Your task to perform on an android device: Open calendar and show me the second week of next month Image 0: 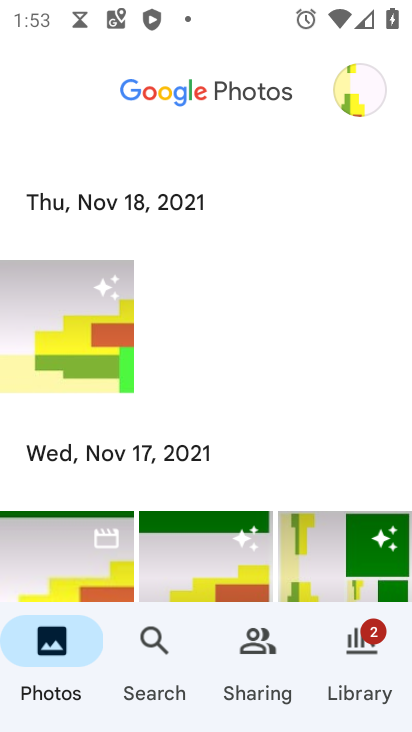
Step 0: press home button
Your task to perform on an android device: Open calendar and show me the second week of next month Image 1: 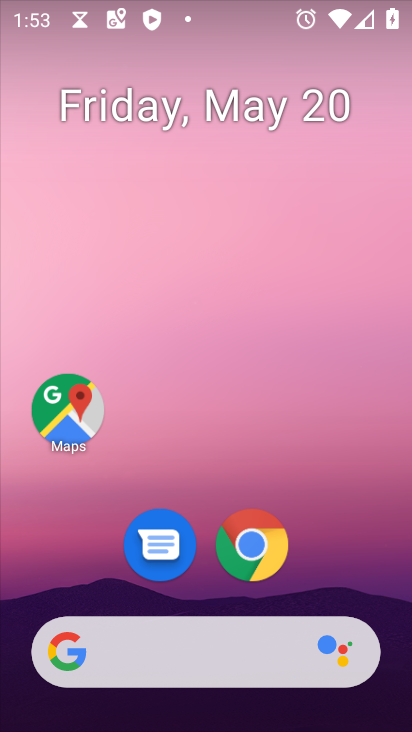
Step 1: click (164, 121)
Your task to perform on an android device: Open calendar and show me the second week of next month Image 2: 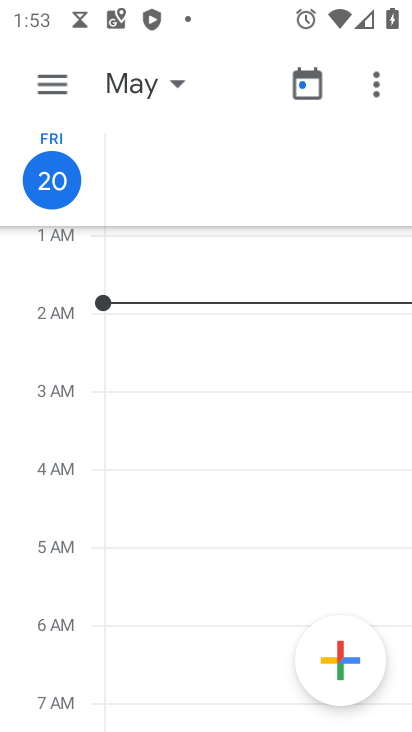
Step 2: click (53, 87)
Your task to perform on an android device: Open calendar and show me the second week of next month Image 3: 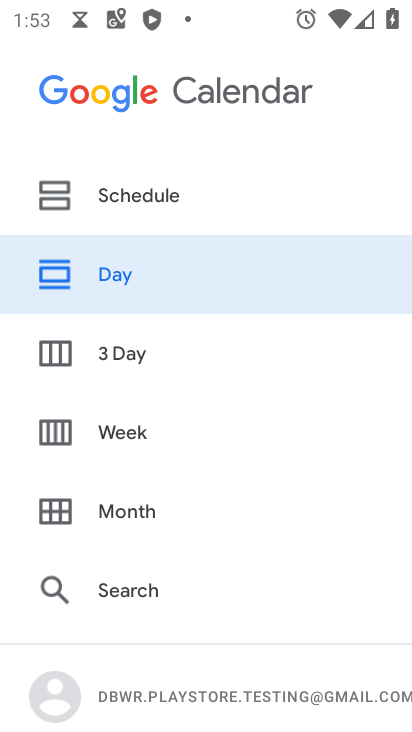
Step 3: click (137, 443)
Your task to perform on an android device: Open calendar and show me the second week of next month Image 4: 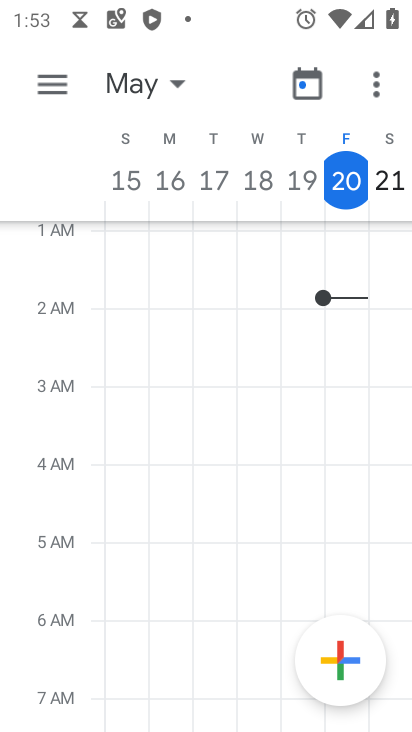
Step 4: click (142, 88)
Your task to perform on an android device: Open calendar and show me the second week of next month Image 5: 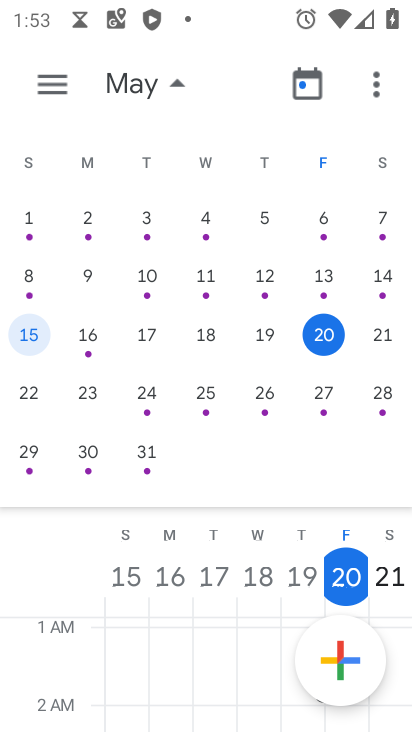
Step 5: drag from (369, 338) to (188, 333)
Your task to perform on an android device: Open calendar and show me the second week of next month Image 6: 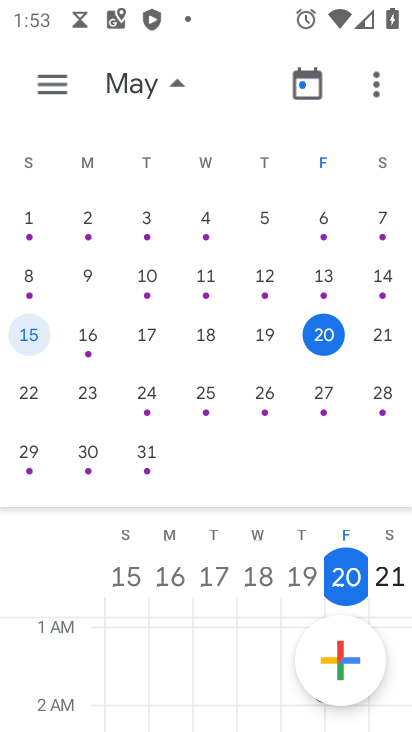
Step 6: drag from (378, 402) to (159, 380)
Your task to perform on an android device: Open calendar and show me the second week of next month Image 7: 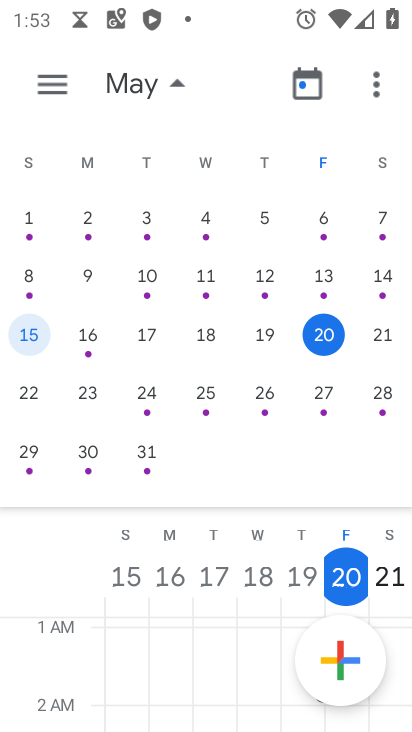
Step 7: drag from (356, 350) to (50, 330)
Your task to perform on an android device: Open calendar and show me the second week of next month Image 8: 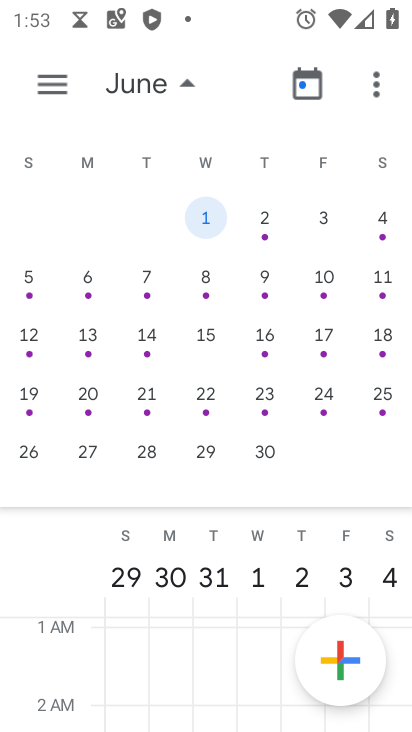
Step 8: click (198, 287)
Your task to perform on an android device: Open calendar and show me the second week of next month Image 9: 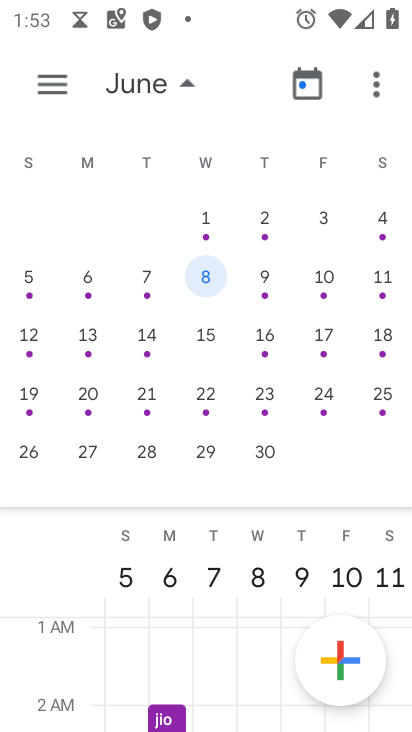
Step 9: task complete